Your task to perform on an android device: find photos in the google photos app Image 0: 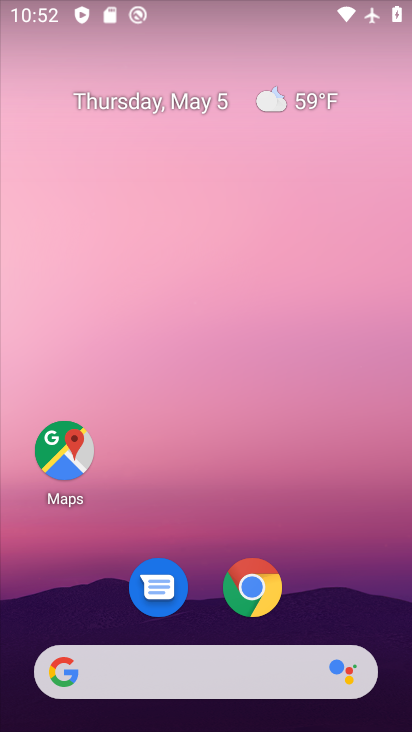
Step 0: drag from (353, 518) to (320, 14)
Your task to perform on an android device: find photos in the google photos app Image 1: 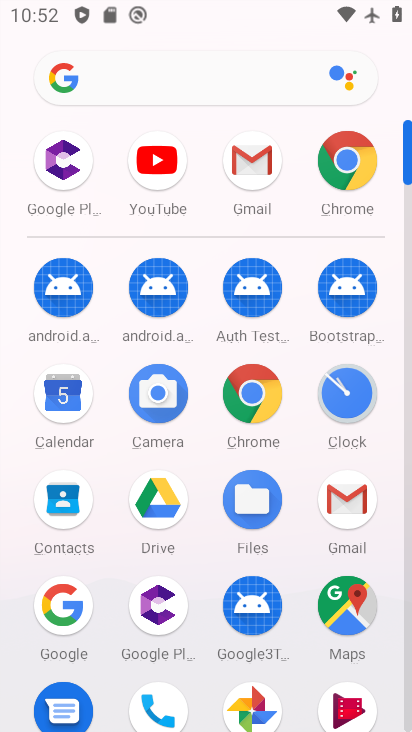
Step 1: click (251, 703)
Your task to perform on an android device: find photos in the google photos app Image 2: 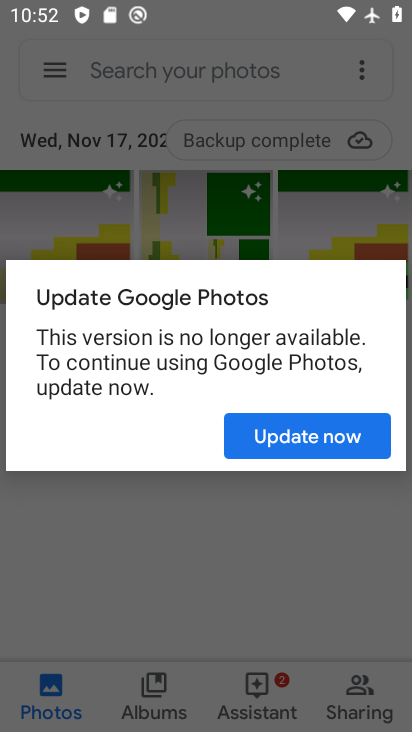
Step 2: click (324, 426)
Your task to perform on an android device: find photos in the google photos app Image 3: 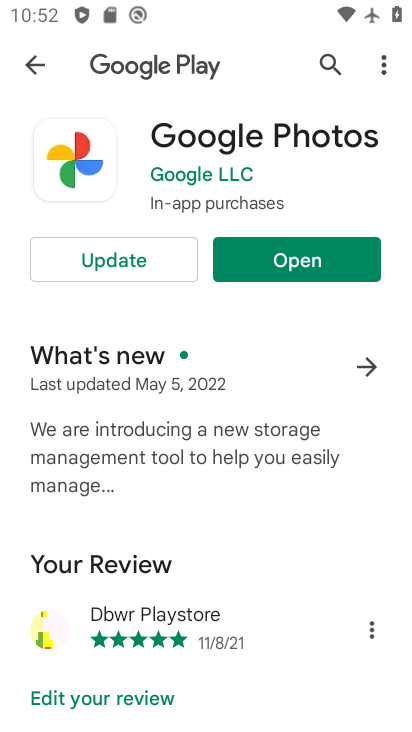
Step 3: click (95, 258)
Your task to perform on an android device: find photos in the google photos app Image 4: 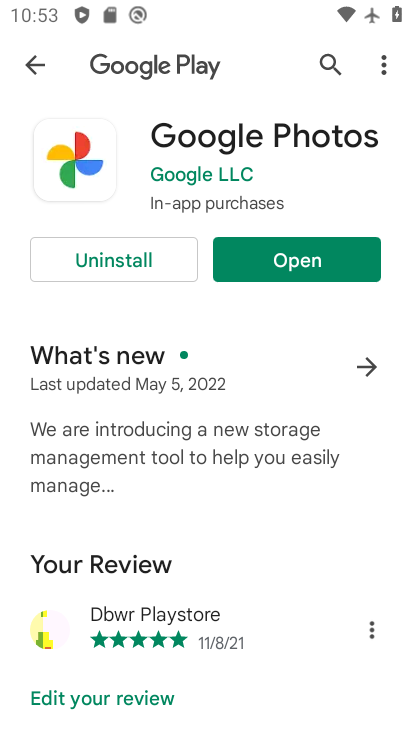
Step 4: click (274, 253)
Your task to perform on an android device: find photos in the google photos app Image 5: 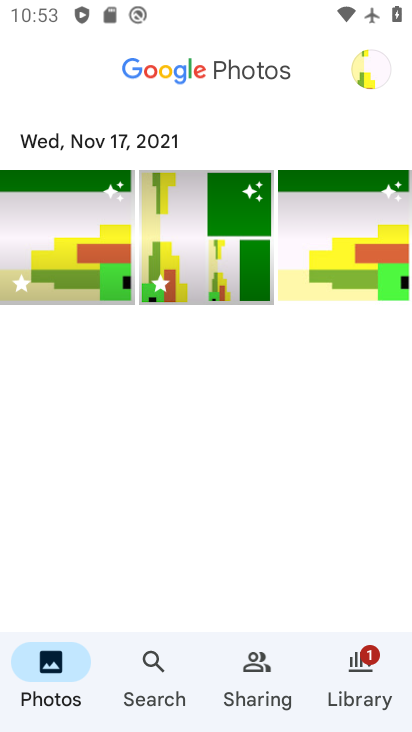
Step 5: task complete